Your task to perform on an android device: turn on showing notifications on the lock screen Image 0: 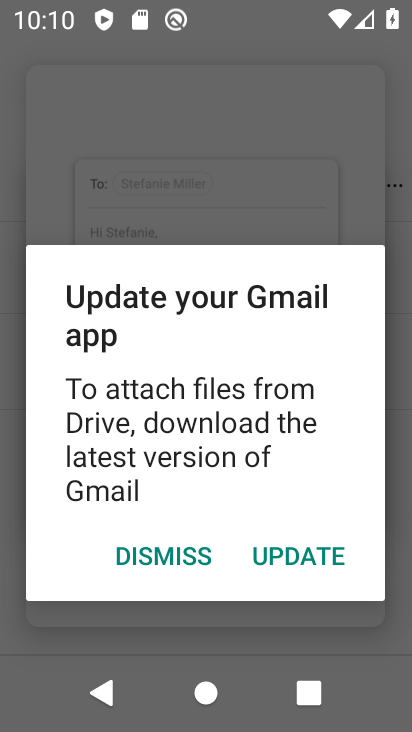
Step 0: press home button
Your task to perform on an android device: turn on showing notifications on the lock screen Image 1: 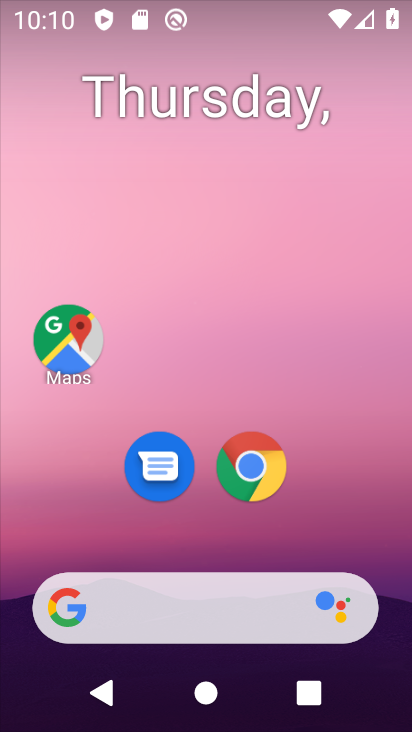
Step 1: drag from (313, 539) to (338, 145)
Your task to perform on an android device: turn on showing notifications on the lock screen Image 2: 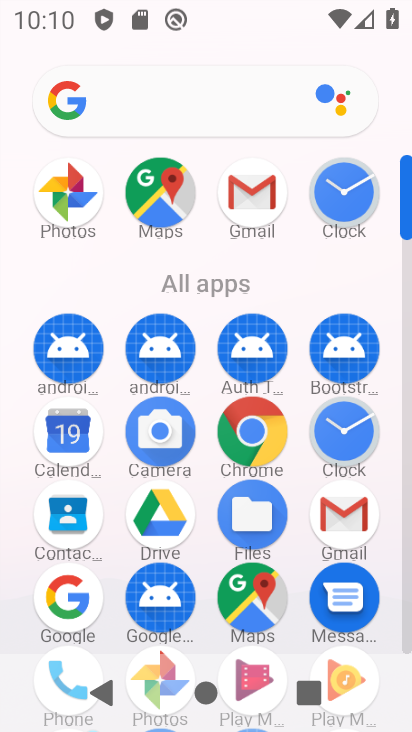
Step 2: drag from (292, 646) to (329, 234)
Your task to perform on an android device: turn on showing notifications on the lock screen Image 3: 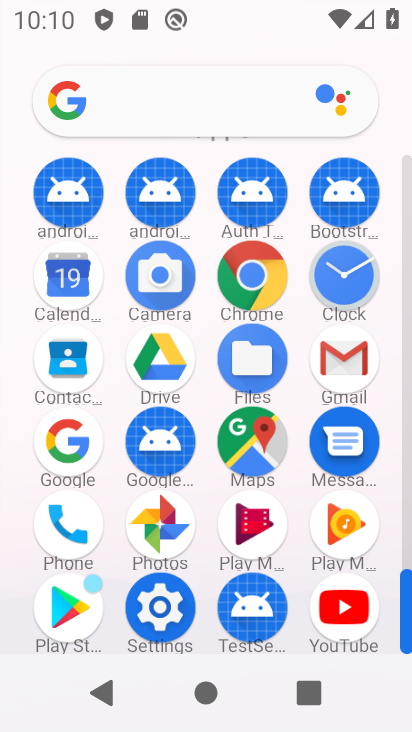
Step 3: click (175, 624)
Your task to perform on an android device: turn on showing notifications on the lock screen Image 4: 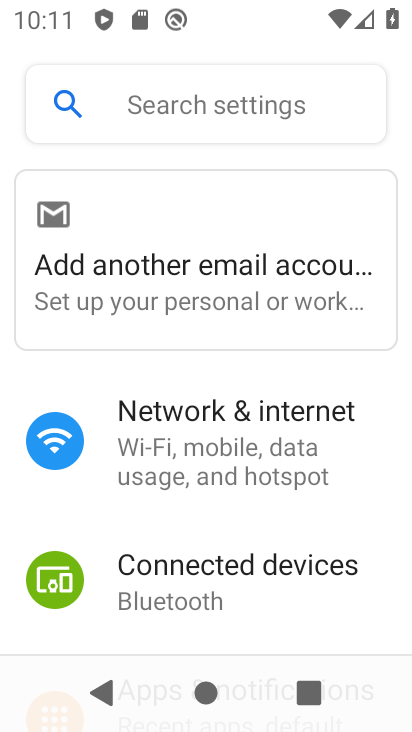
Step 4: drag from (184, 583) to (202, 241)
Your task to perform on an android device: turn on showing notifications on the lock screen Image 5: 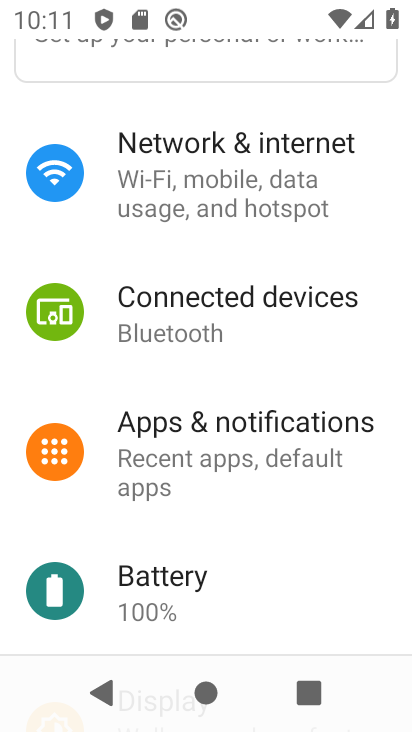
Step 5: drag from (183, 564) to (225, 177)
Your task to perform on an android device: turn on showing notifications on the lock screen Image 6: 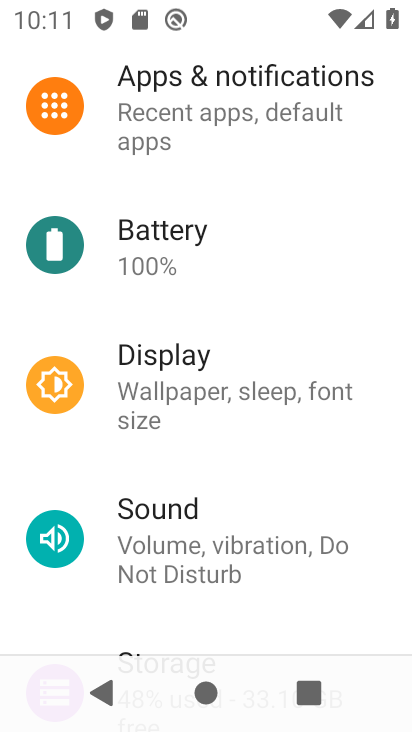
Step 6: drag from (234, 576) to (234, 263)
Your task to perform on an android device: turn on showing notifications on the lock screen Image 7: 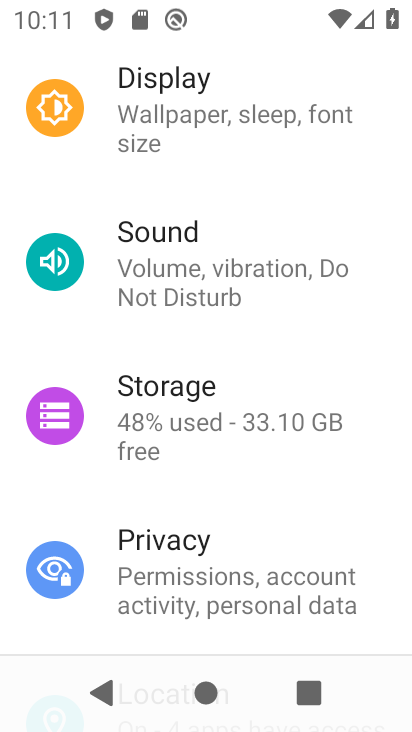
Step 7: drag from (321, 594) to (312, 231)
Your task to perform on an android device: turn on showing notifications on the lock screen Image 8: 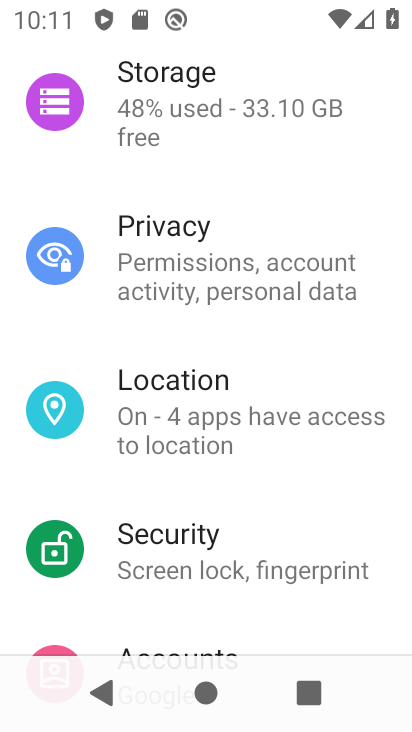
Step 8: drag from (267, 570) to (284, 240)
Your task to perform on an android device: turn on showing notifications on the lock screen Image 9: 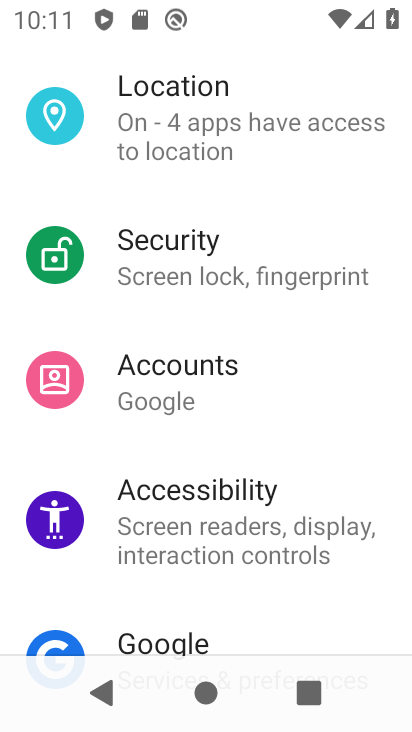
Step 9: drag from (249, 656) to (259, 730)
Your task to perform on an android device: turn on showing notifications on the lock screen Image 10: 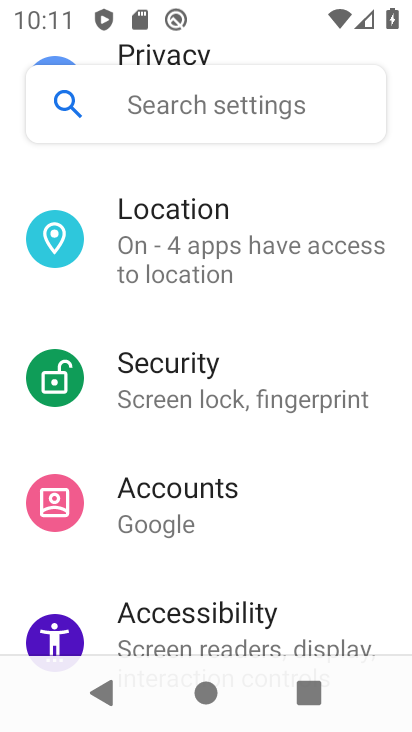
Step 10: drag from (236, 402) to (220, 727)
Your task to perform on an android device: turn on showing notifications on the lock screen Image 11: 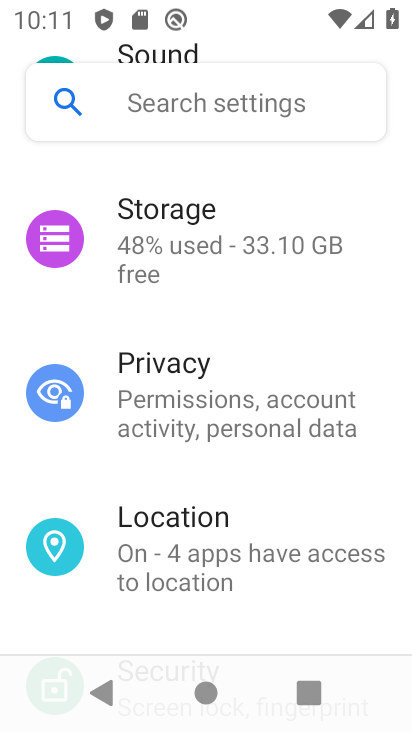
Step 11: drag from (202, 332) to (225, 710)
Your task to perform on an android device: turn on showing notifications on the lock screen Image 12: 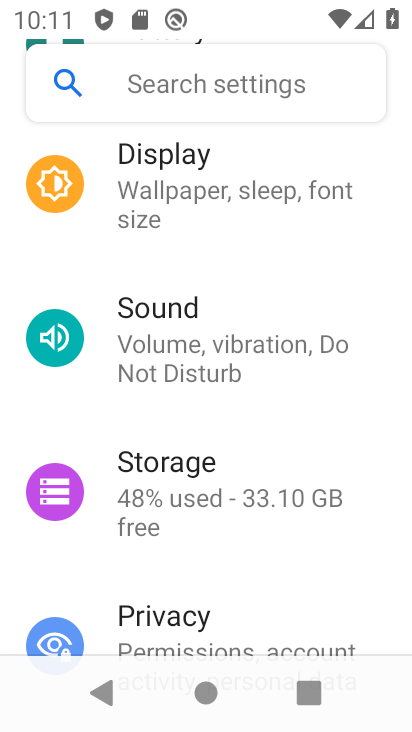
Step 12: drag from (282, 266) to (246, 652)
Your task to perform on an android device: turn on showing notifications on the lock screen Image 13: 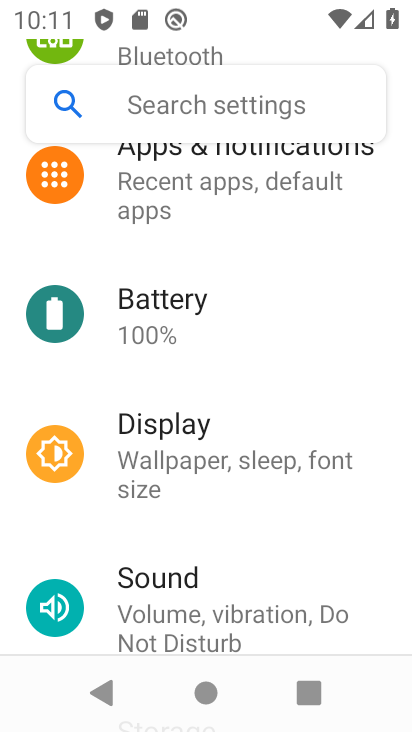
Step 13: drag from (224, 260) to (233, 506)
Your task to perform on an android device: turn on showing notifications on the lock screen Image 14: 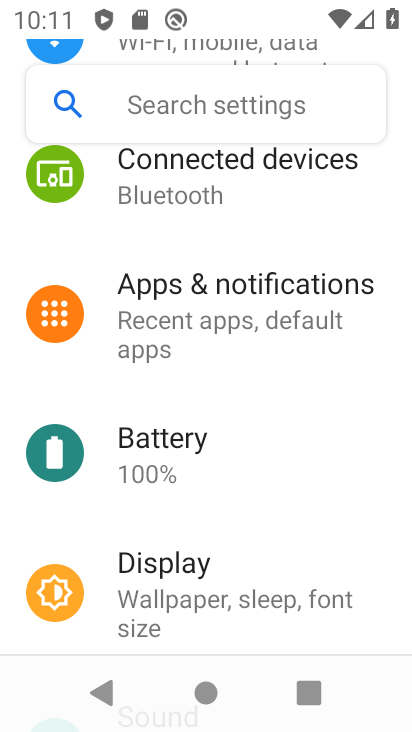
Step 14: click (218, 323)
Your task to perform on an android device: turn on showing notifications on the lock screen Image 15: 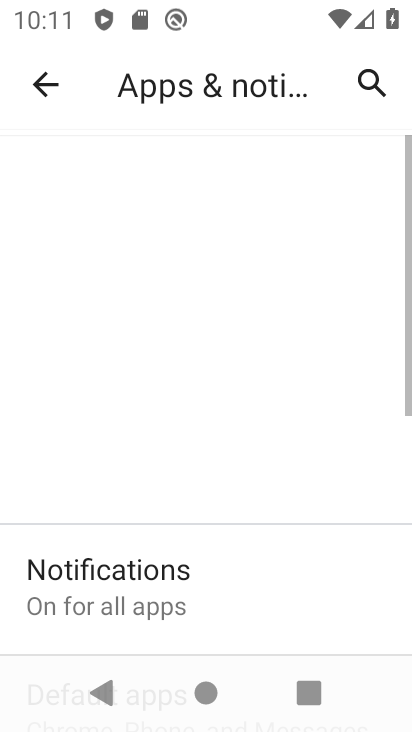
Step 15: drag from (244, 611) to (253, 300)
Your task to perform on an android device: turn on showing notifications on the lock screen Image 16: 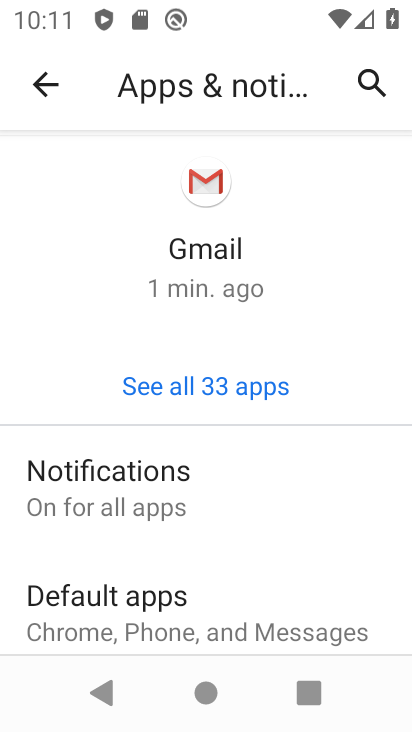
Step 16: click (163, 486)
Your task to perform on an android device: turn on showing notifications on the lock screen Image 17: 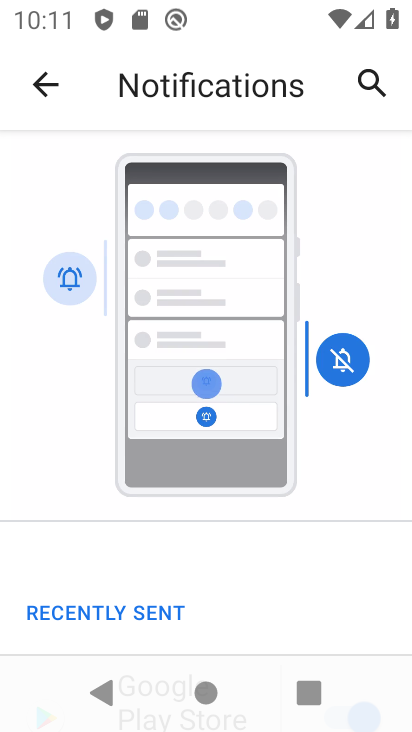
Step 17: drag from (337, 601) to (367, 204)
Your task to perform on an android device: turn on showing notifications on the lock screen Image 18: 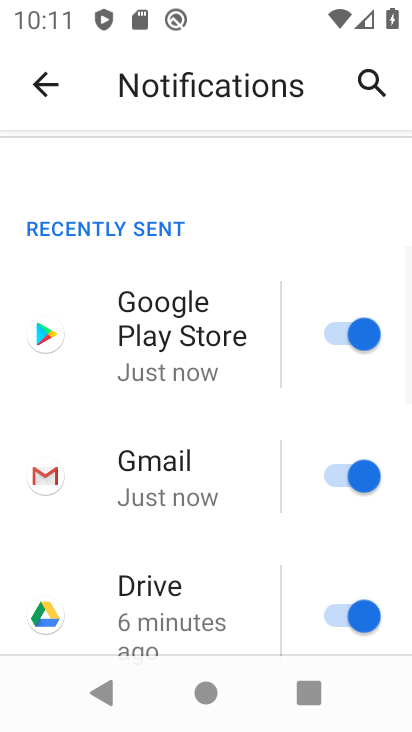
Step 18: drag from (233, 579) to (284, 183)
Your task to perform on an android device: turn on showing notifications on the lock screen Image 19: 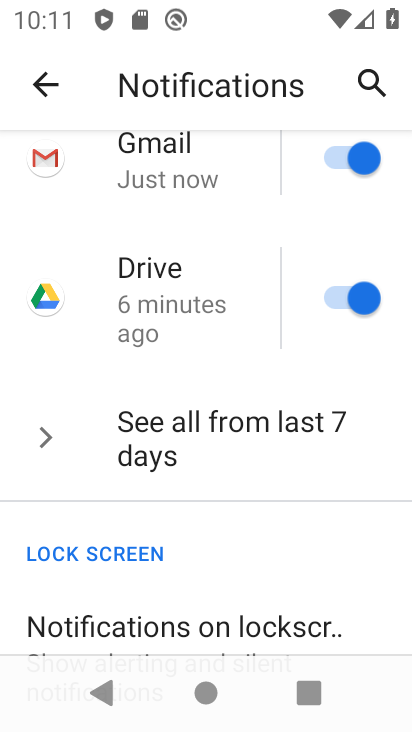
Step 19: click (216, 629)
Your task to perform on an android device: turn on showing notifications on the lock screen Image 20: 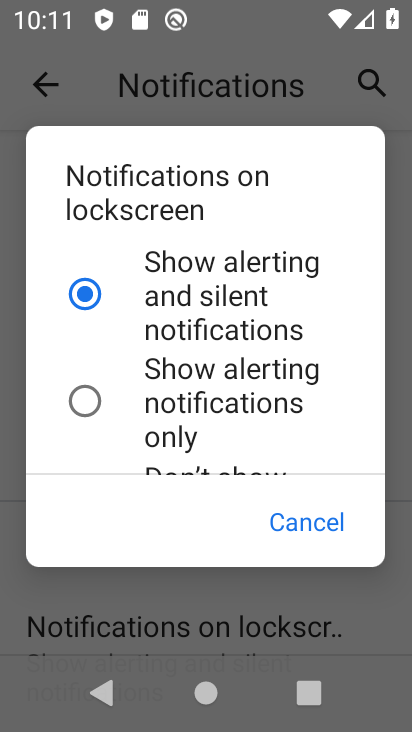
Step 20: task complete